Your task to perform on an android device: Is it going to rain tomorrow? Image 0: 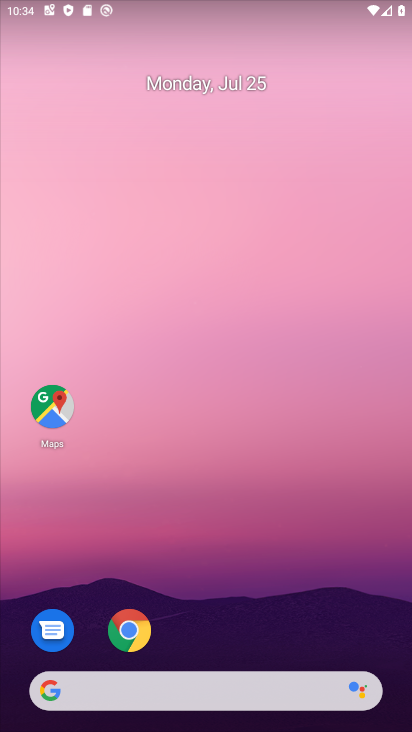
Step 0: press home button
Your task to perform on an android device: Is it going to rain tomorrow? Image 1: 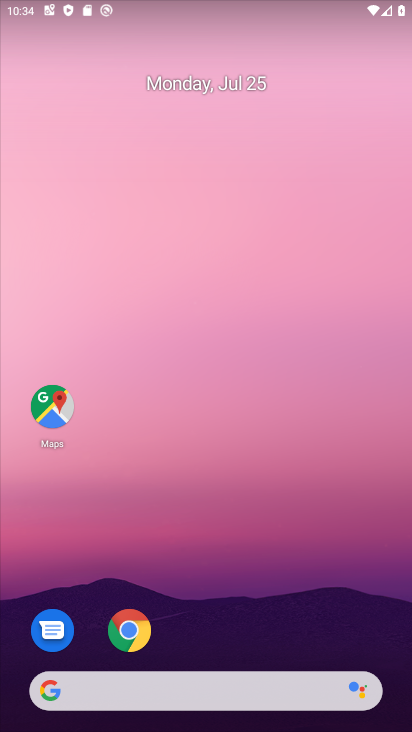
Step 1: click (252, 692)
Your task to perform on an android device: Is it going to rain tomorrow? Image 2: 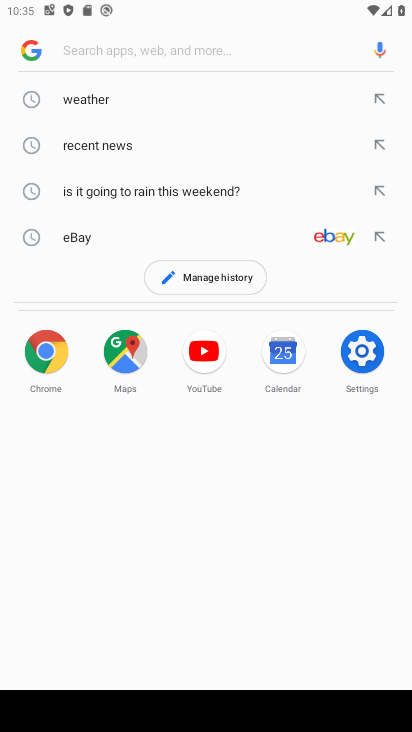
Step 2: click (101, 102)
Your task to perform on an android device: Is it going to rain tomorrow? Image 3: 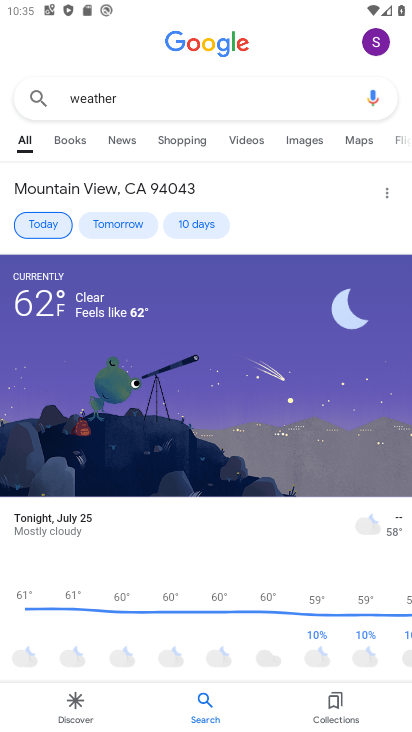
Step 3: click (127, 225)
Your task to perform on an android device: Is it going to rain tomorrow? Image 4: 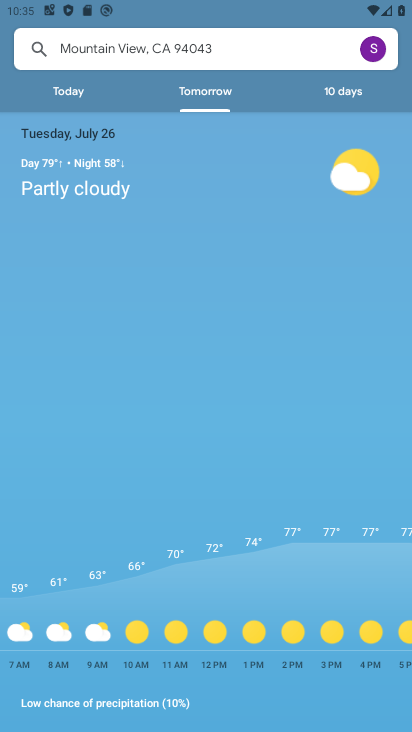
Step 4: task complete